Your task to perform on an android device: Search for seafood restaurants on Google Maps Image 0: 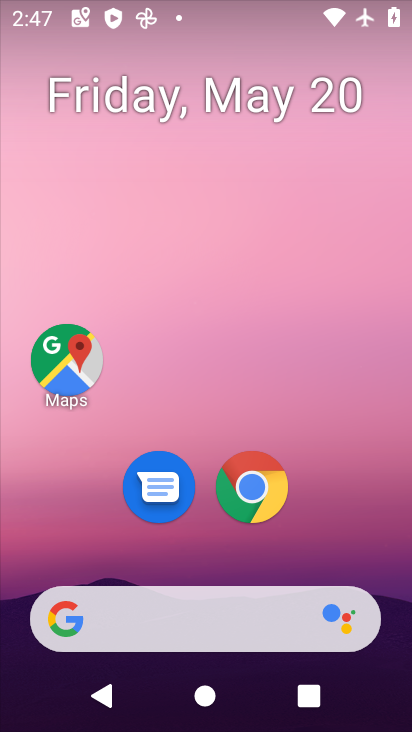
Step 0: drag from (363, 537) to (330, 112)
Your task to perform on an android device: Search for seafood restaurants on Google Maps Image 1: 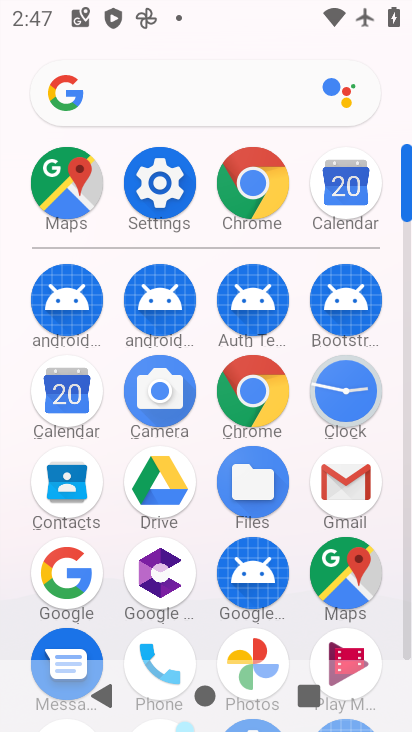
Step 1: click (63, 196)
Your task to perform on an android device: Search for seafood restaurants on Google Maps Image 2: 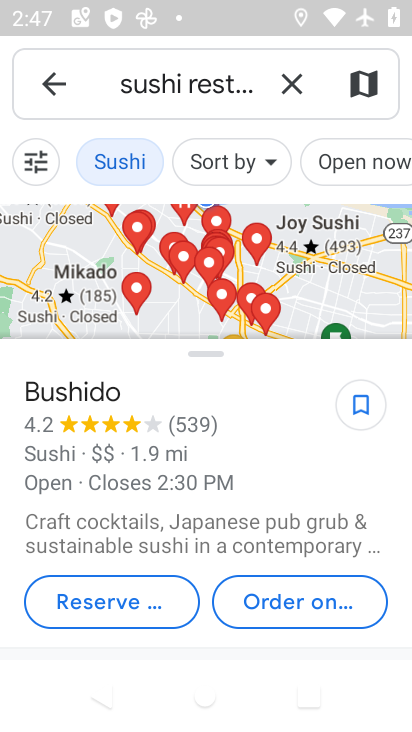
Step 2: click (295, 85)
Your task to perform on an android device: Search for seafood restaurants on Google Maps Image 3: 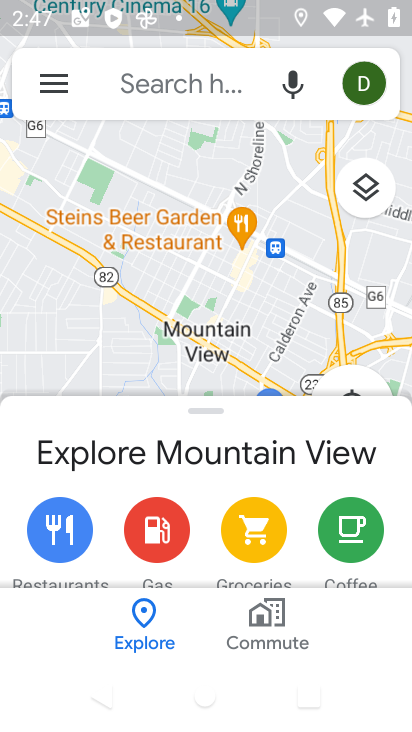
Step 3: click (194, 97)
Your task to perform on an android device: Search for seafood restaurants on Google Maps Image 4: 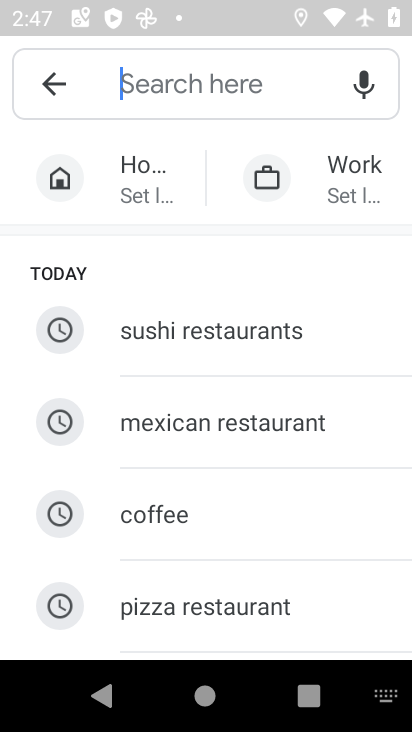
Step 4: drag from (292, 565) to (292, 146)
Your task to perform on an android device: Search for seafood restaurants on Google Maps Image 5: 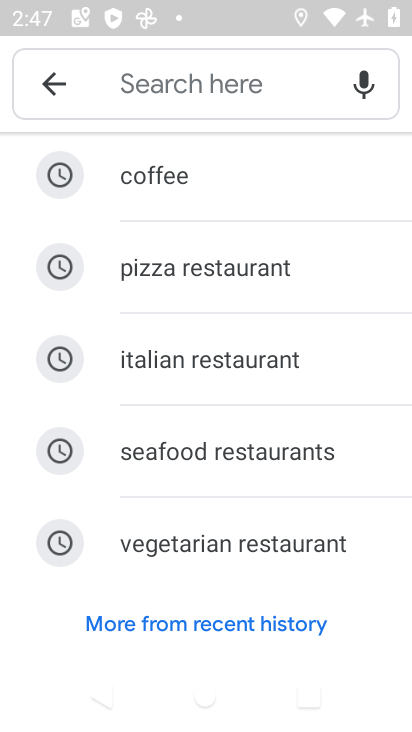
Step 5: click (183, 464)
Your task to perform on an android device: Search for seafood restaurants on Google Maps Image 6: 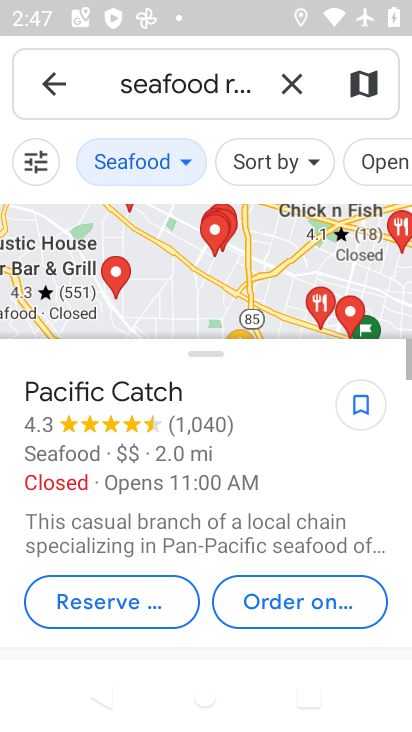
Step 6: task complete